Your task to perform on an android device: set the timer Image 0: 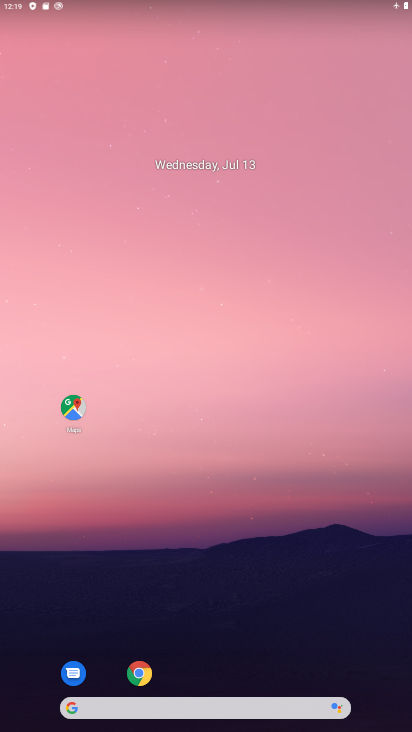
Step 0: drag from (282, 671) to (225, 101)
Your task to perform on an android device: set the timer Image 1: 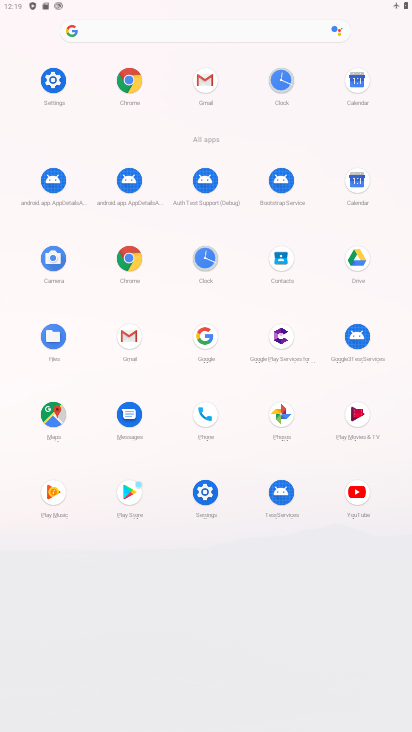
Step 1: click (285, 93)
Your task to perform on an android device: set the timer Image 2: 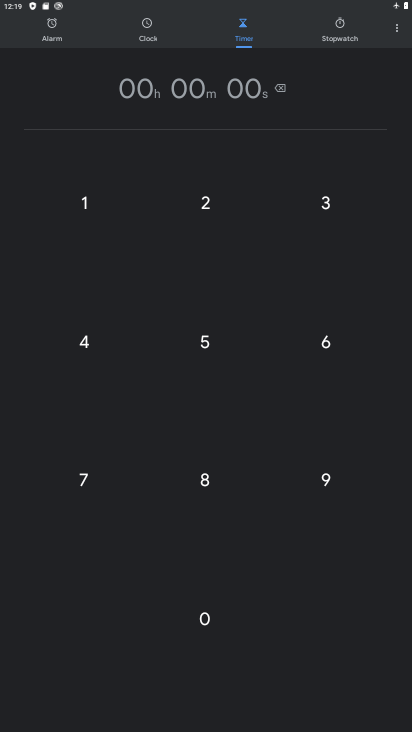
Step 2: task complete